Your task to perform on an android device: open sync settings in chrome Image 0: 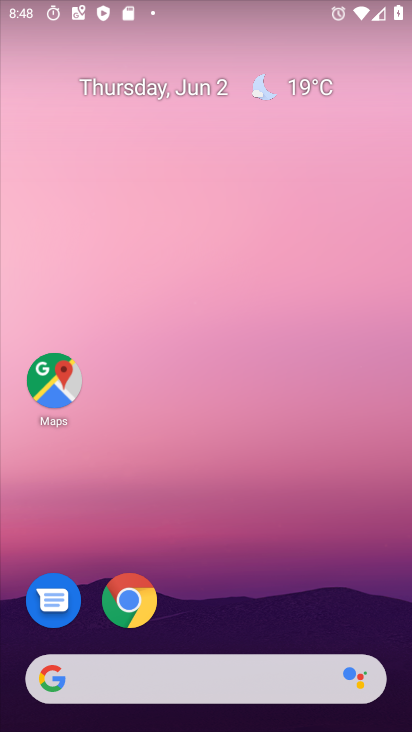
Step 0: drag from (375, 613) to (378, 223)
Your task to perform on an android device: open sync settings in chrome Image 1: 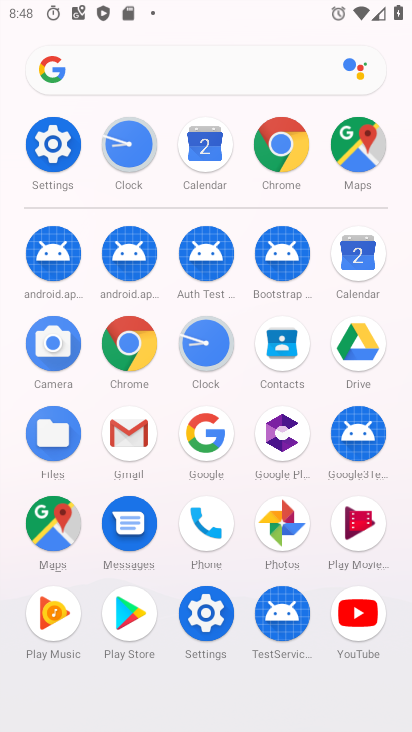
Step 1: click (137, 349)
Your task to perform on an android device: open sync settings in chrome Image 2: 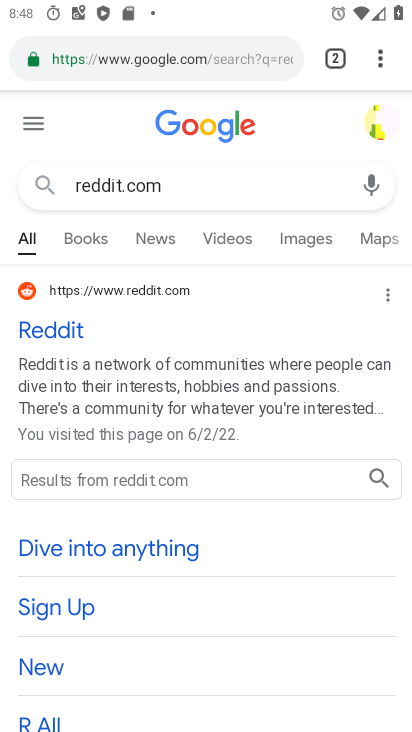
Step 2: click (380, 64)
Your task to perform on an android device: open sync settings in chrome Image 3: 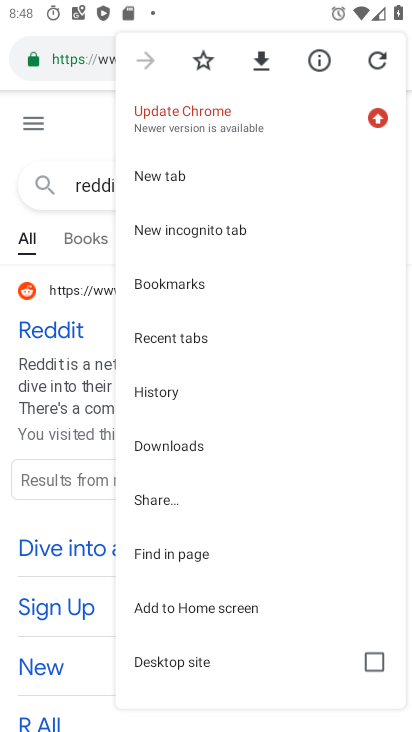
Step 3: drag from (329, 520) to (333, 394)
Your task to perform on an android device: open sync settings in chrome Image 4: 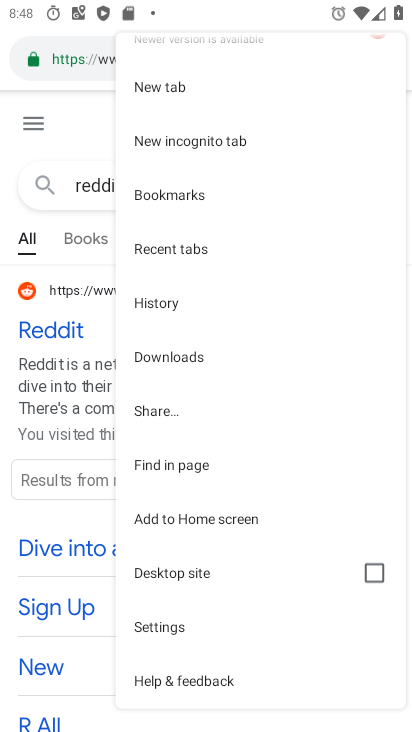
Step 4: drag from (318, 567) to (323, 463)
Your task to perform on an android device: open sync settings in chrome Image 5: 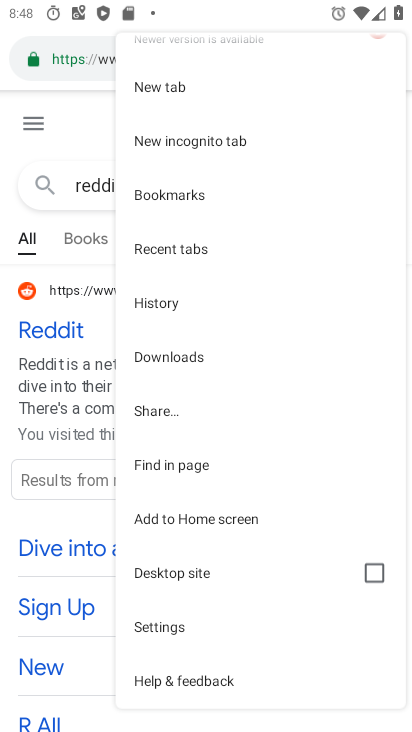
Step 5: click (173, 634)
Your task to perform on an android device: open sync settings in chrome Image 6: 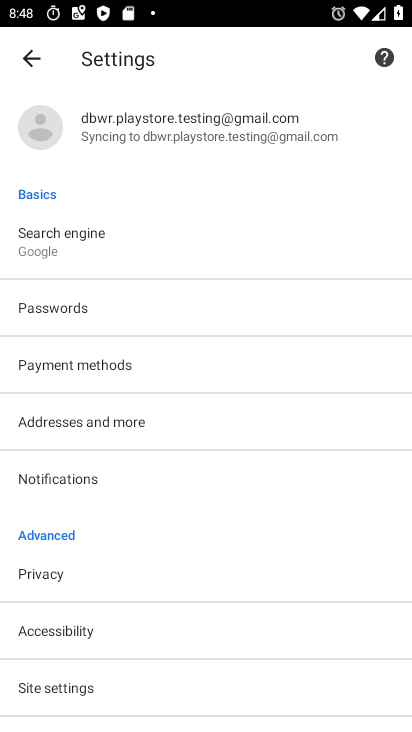
Step 6: drag from (254, 528) to (277, 384)
Your task to perform on an android device: open sync settings in chrome Image 7: 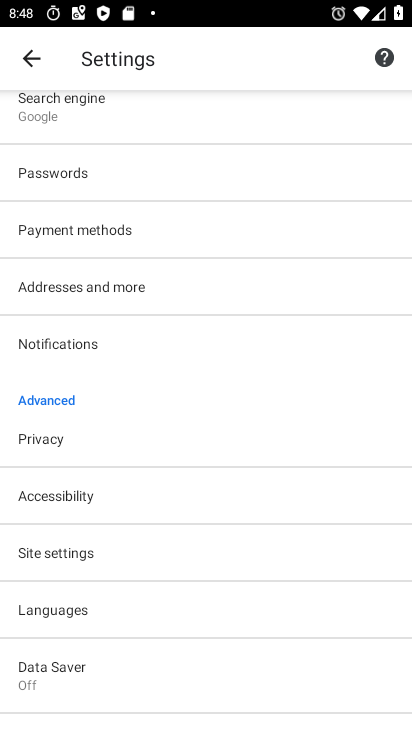
Step 7: drag from (286, 554) to (308, 415)
Your task to perform on an android device: open sync settings in chrome Image 8: 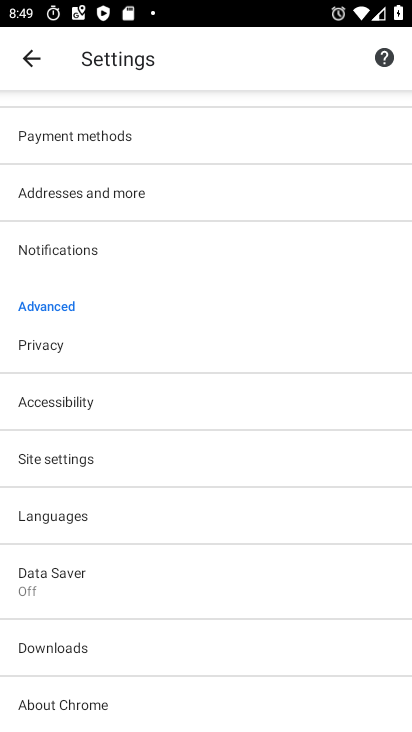
Step 8: drag from (310, 591) to (316, 374)
Your task to perform on an android device: open sync settings in chrome Image 9: 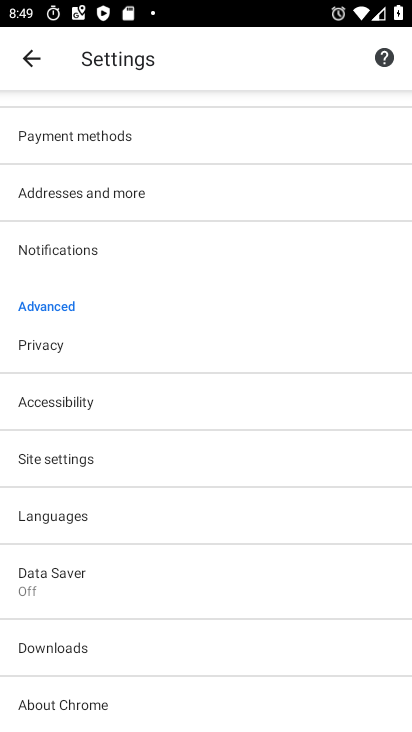
Step 9: click (286, 457)
Your task to perform on an android device: open sync settings in chrome Image 10: 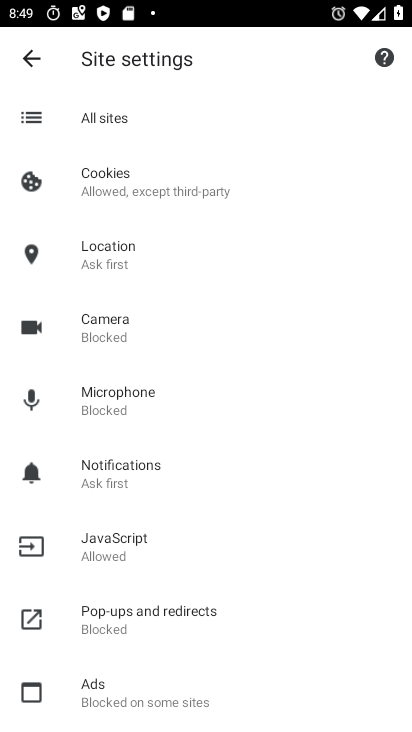
Step 10: drag from (316, 528) to (315, 405)
Your task to perform on an android device: open sync settings in chrome Image 11: 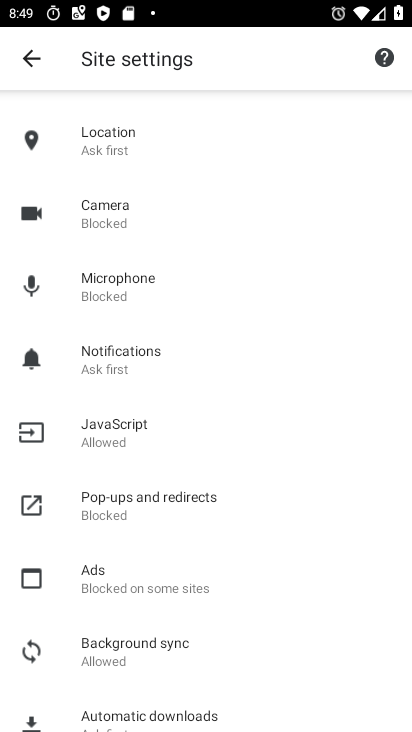
Step 11: drag from (315, 567) to (327, 430)
Your task to perform on an android device: open sync settings in chrome Image 12: 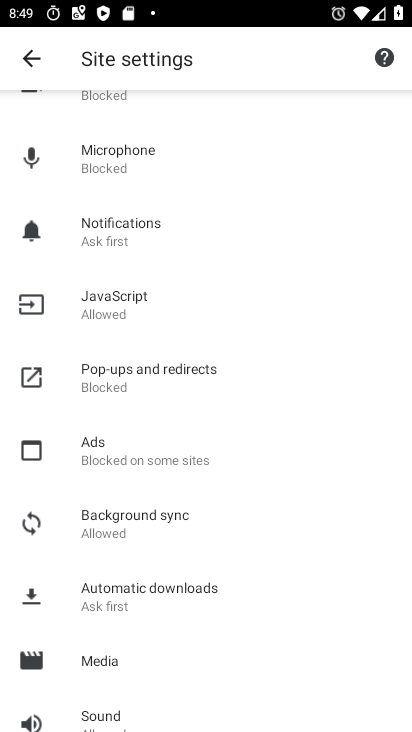
Step 12: drag from (331, 572) to (329, 451)
Your task to perform on an android device: open sync settings in chrome Image 13: 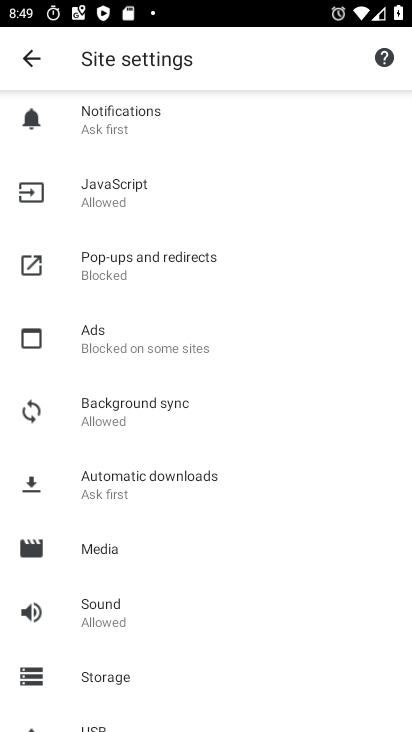
Step 13: click (186, 408)
Your task to perform on an android device: open sync settings in chrome Image 14: 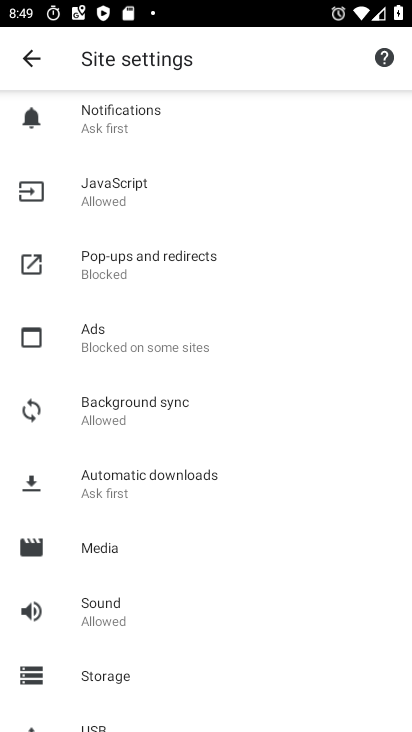
Step 14: click (130, 424)
Your task to perform on an android device: open sync settings in chrome Image 15: 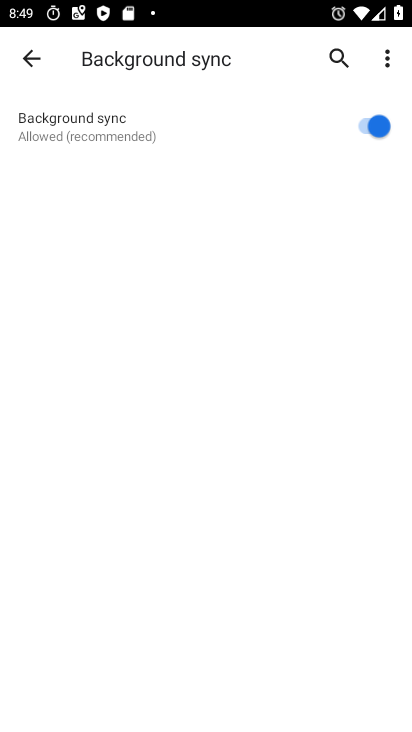
Step 15: task complete